Your task to perform on an android device: Show me popular videos on Youtube Image 0: 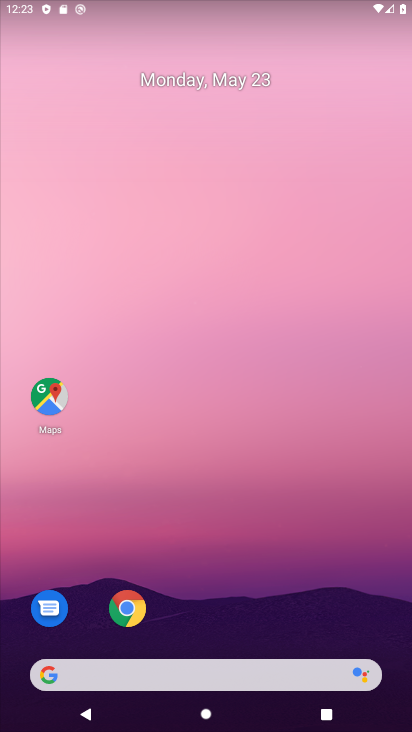
Step 0: drag from (339, 598) to (358, 138)
Your task to perform on an android device: Show me popular videos on Youtube Image 1: 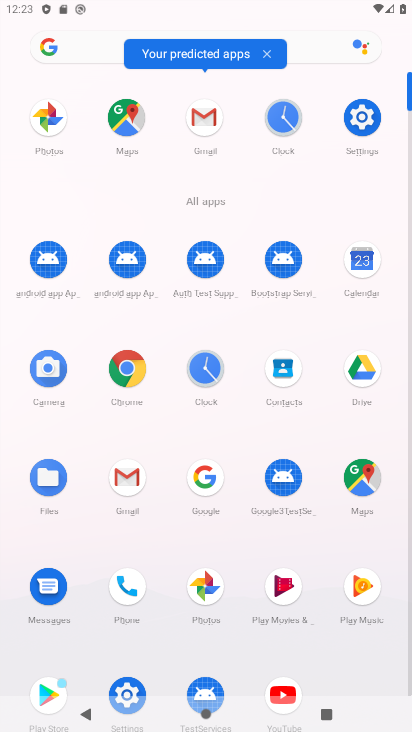
Step 1: click (281, 681)
Your task to perform on an android device: Show me popular videos on Youtube Image 2: 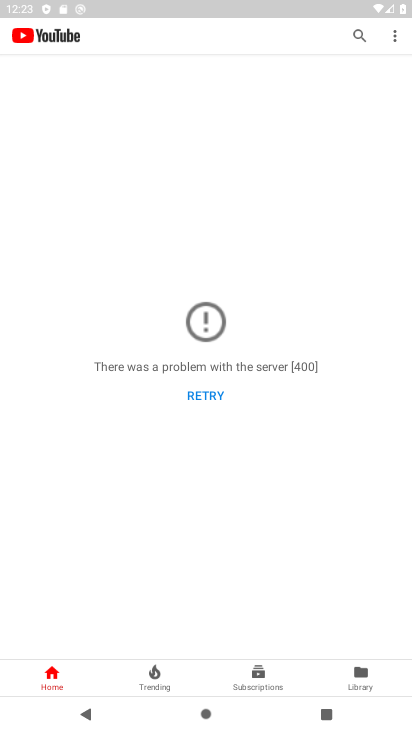
Step 2: click (162, 678)
Your task to perform on an android device: Show me popular videos on Youtube Image 3: 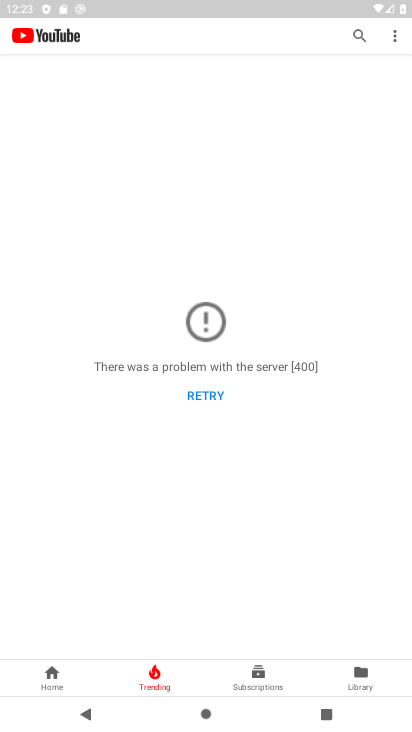
Step 3: task complete